Your task to perform on an android device: Open Reddit.com Image 0: 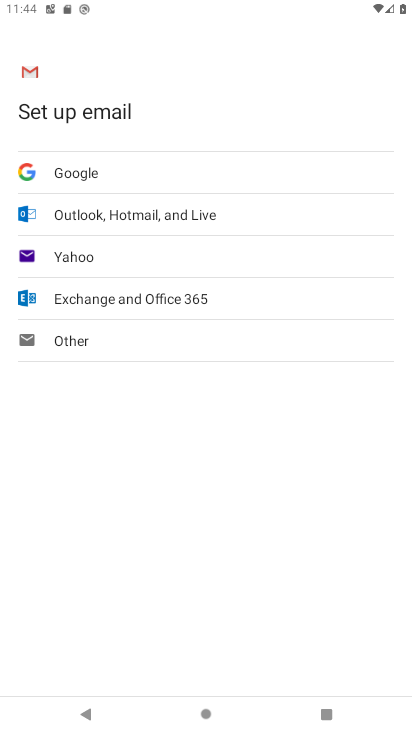
Step 0: press home button
Your task to perform on an android device: Open Reddit.com Image 1: 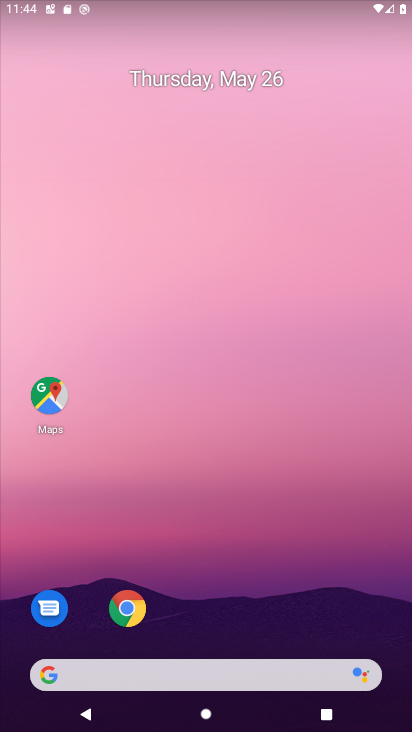
Step 1: click (124, 604)
Your task to perform on an android device: Open Reddit.com Image 2: 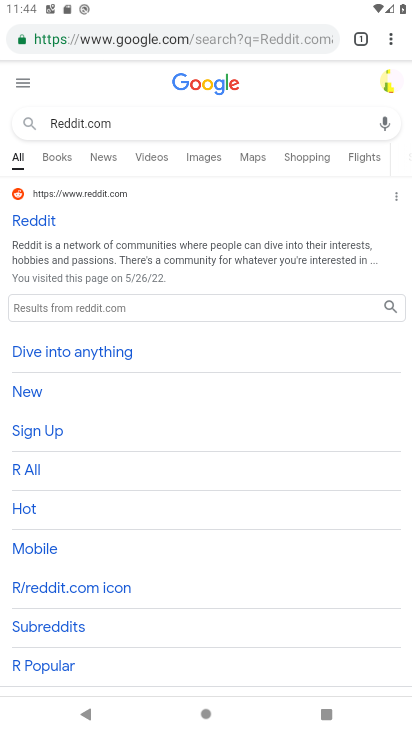
Step 2: click (330, 38)
Your task to perform on an android device: Open Reddit.com Image 3: 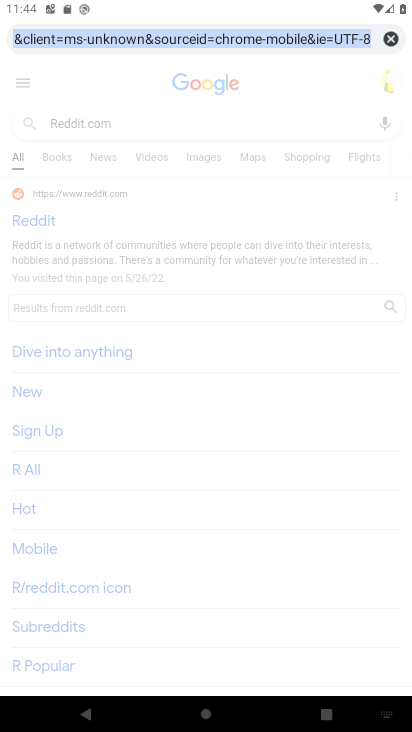
Step 3: click (386, 40)
Your task to perform on an android device: Open Reddit.com Image 4: 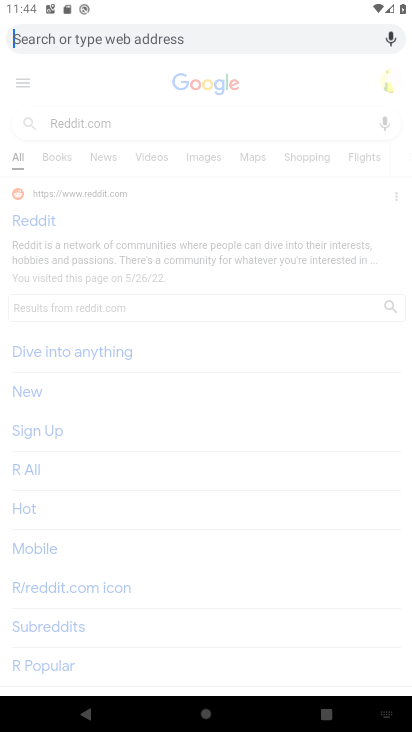
Step 4: type " Reddit.com"
Your task to perform on an android device: Open Reddit.com Image 5: 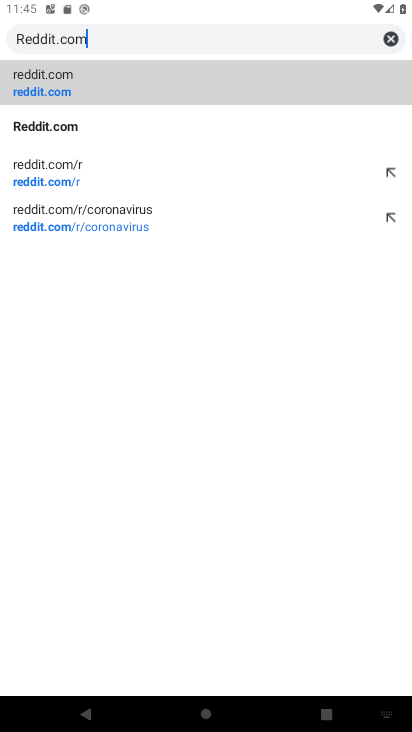
Step 5: click (47, 123)
Your task to perform on an android device: Open Reddit.com Image 6: 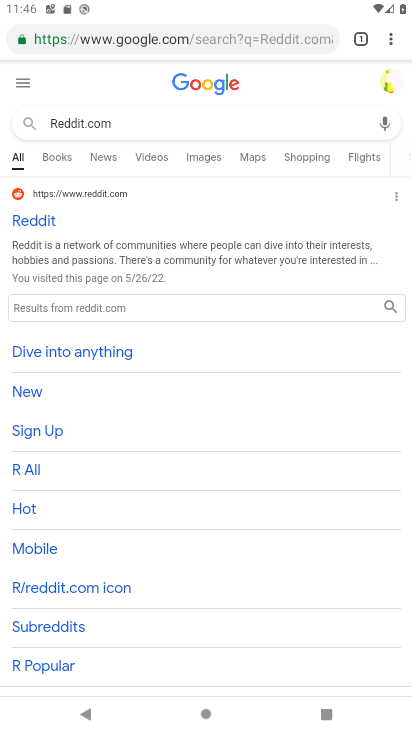
Step 6: task complete